Your task to perform on an android device: Clear the shopping cart on amazon.com. Search for beats solo 3 on amazon.com, select the first entry, and add it to the cart. Image 0: 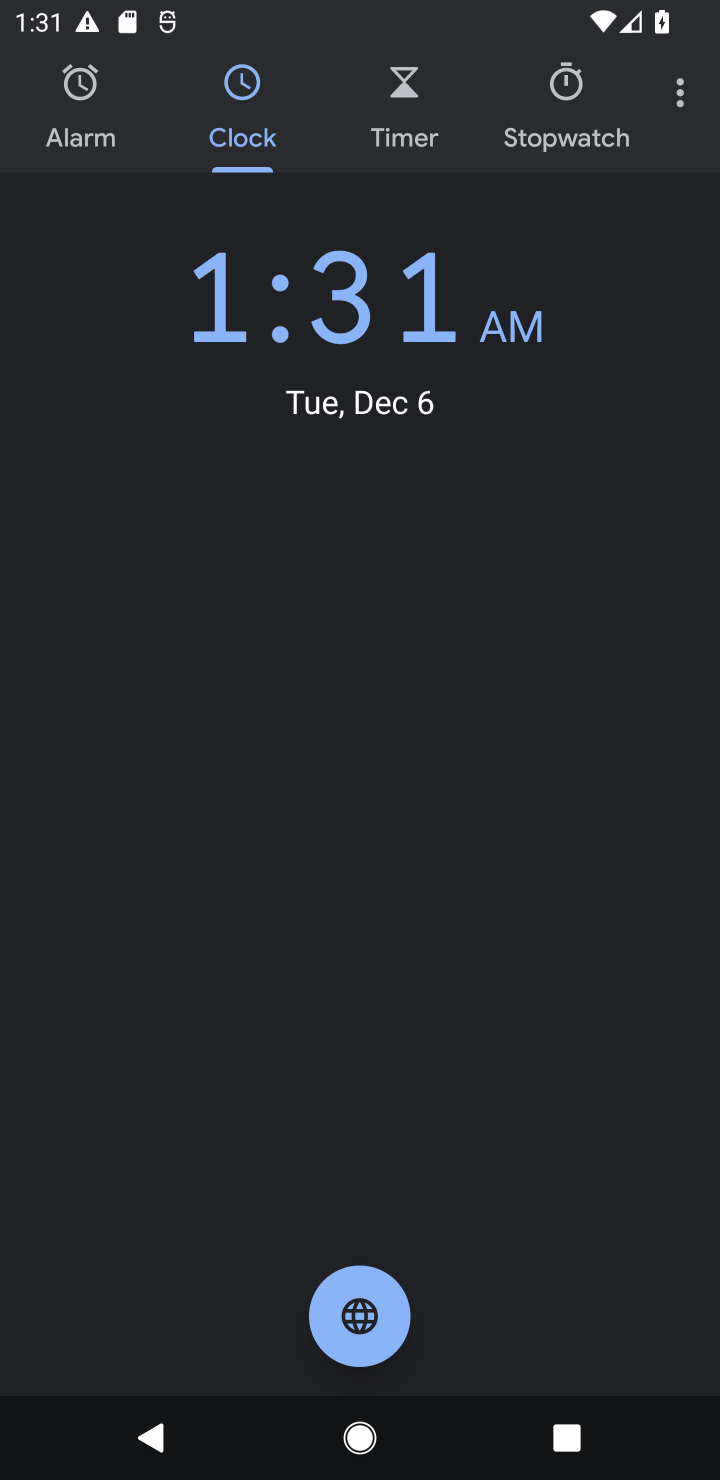
Step 0: press home button
Your task to perform on an android device: Clear the shopping cart on amazon.com. Search for beats solo 3 on amazon.com, select the first entry, and add it to the cart. Image 1: 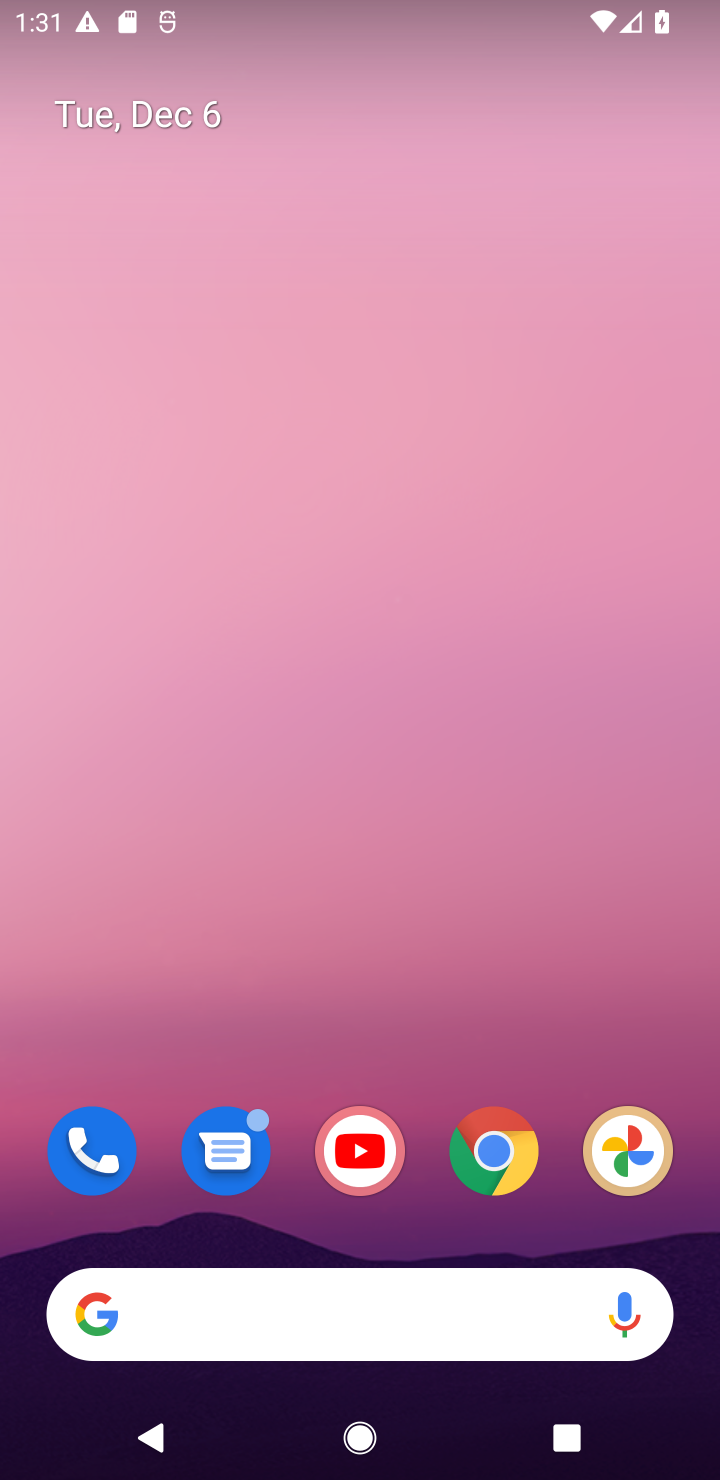
Step 1: click (496, 1140)
Your task to perform on an android device: Clear the shopping cart on amazon.com. Search for beats solo 3 on amazon.com, select the first entry, and add it to the cart. Image 2: 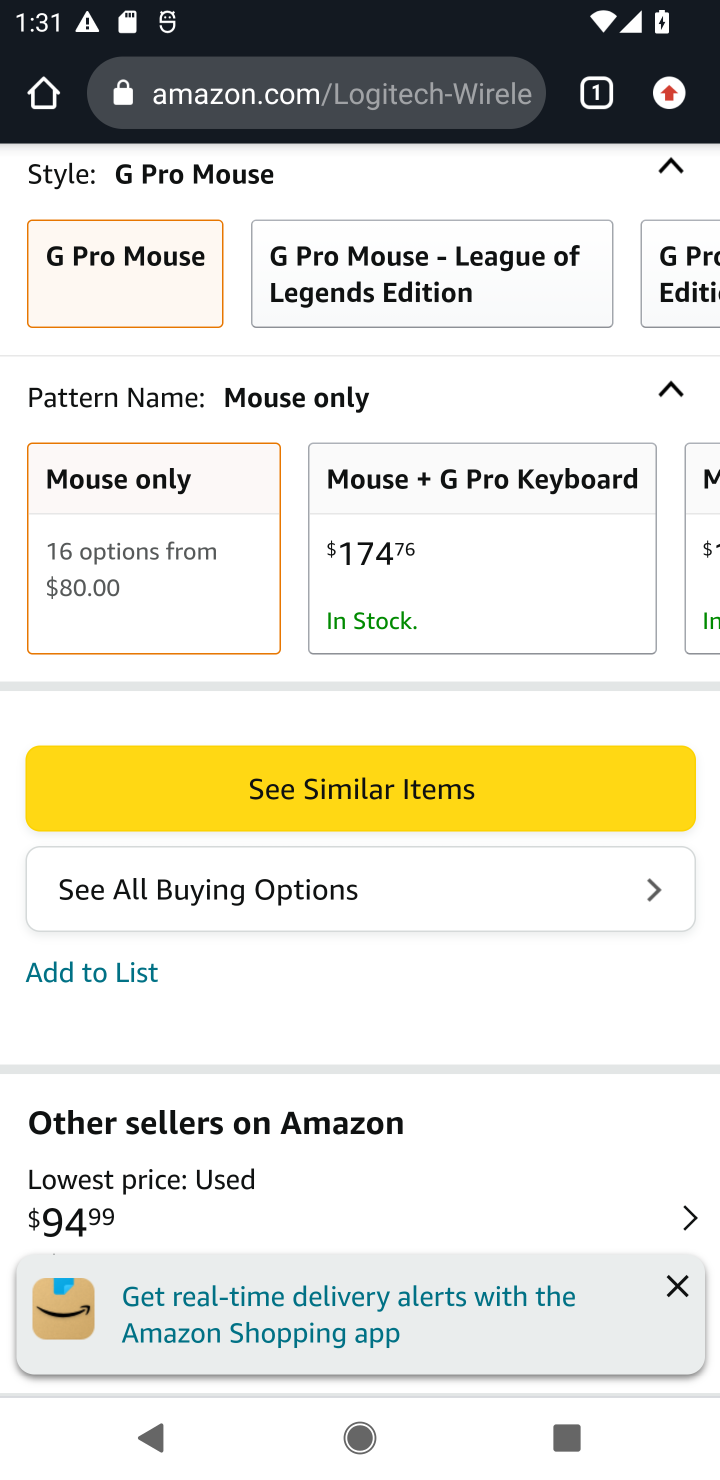
Step 2: drag from (413, 968) to (407, 1232)
Your task to perform on an android device: Clear the shopping cart on amazon.com. Search for beats solo 3 on amazon.com, select the first entry, and add it to the cart. Image 3: 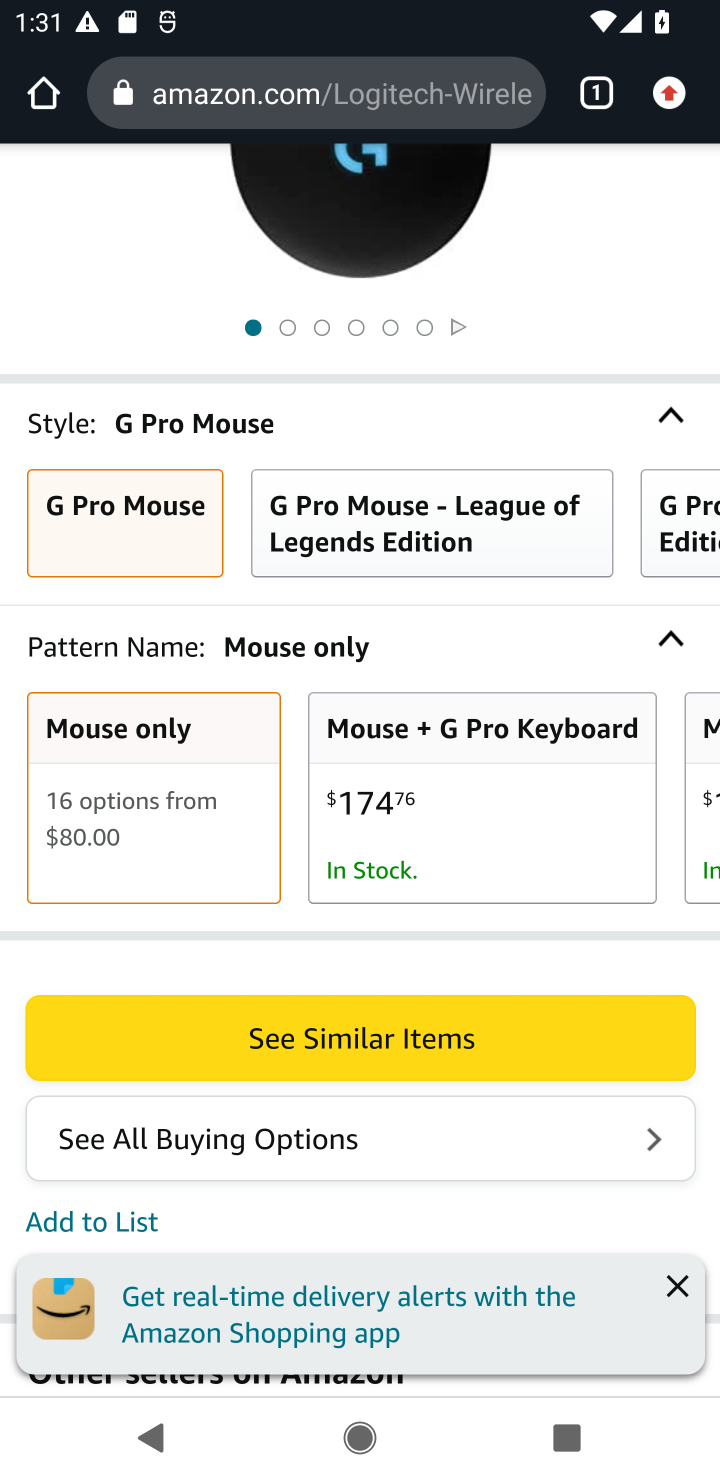
Step 3: drag from (622, 296) to (518, 1267)
Your task to perform on an android device: Clear the shopping cart on amazon.com. Search for beats solo 3 on amazon.com, select the first entry, and add it to the cart. Image 4: 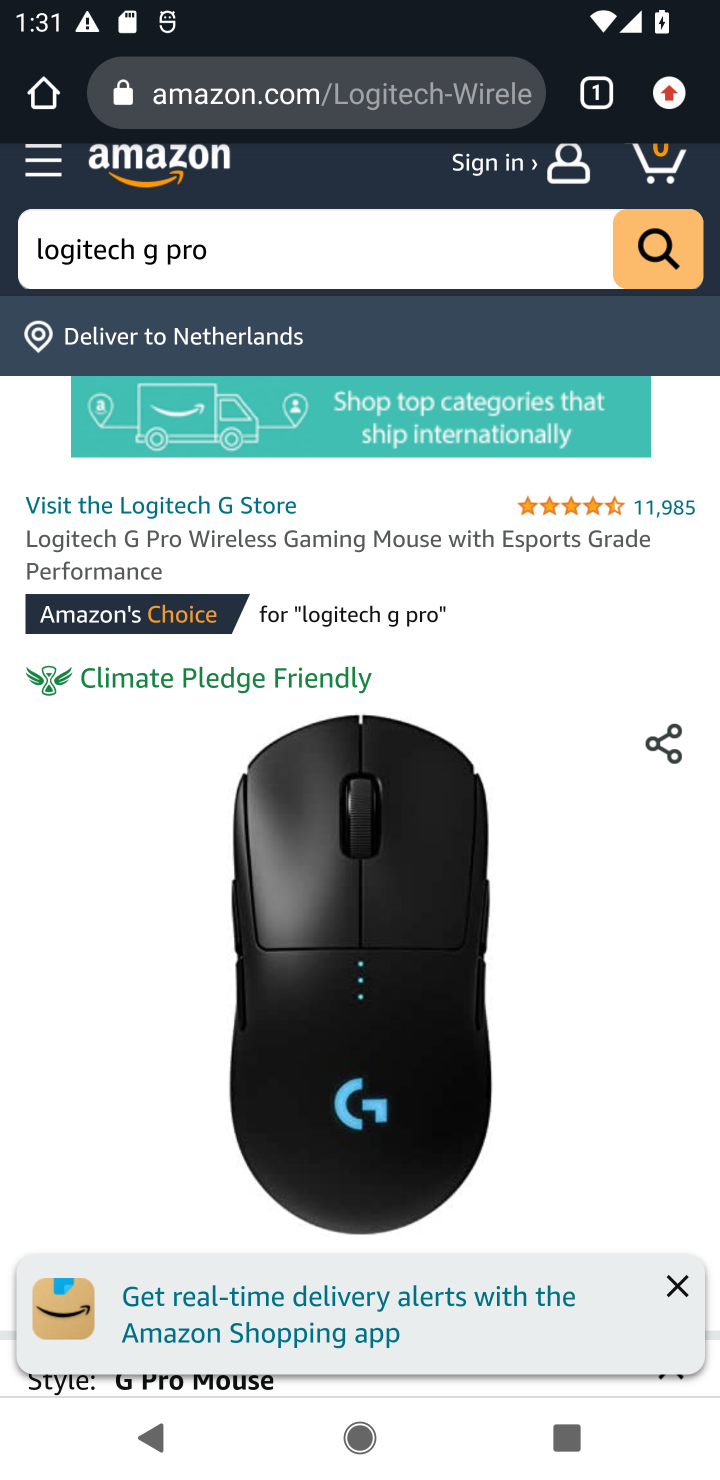
Step 4: click (657, 155)
Your task to perform on an android device: Clear the shopping cart on amazon.com. Search for beats solo 3 on amazon.com, select the first entry, and add it to the cart. Image 5: 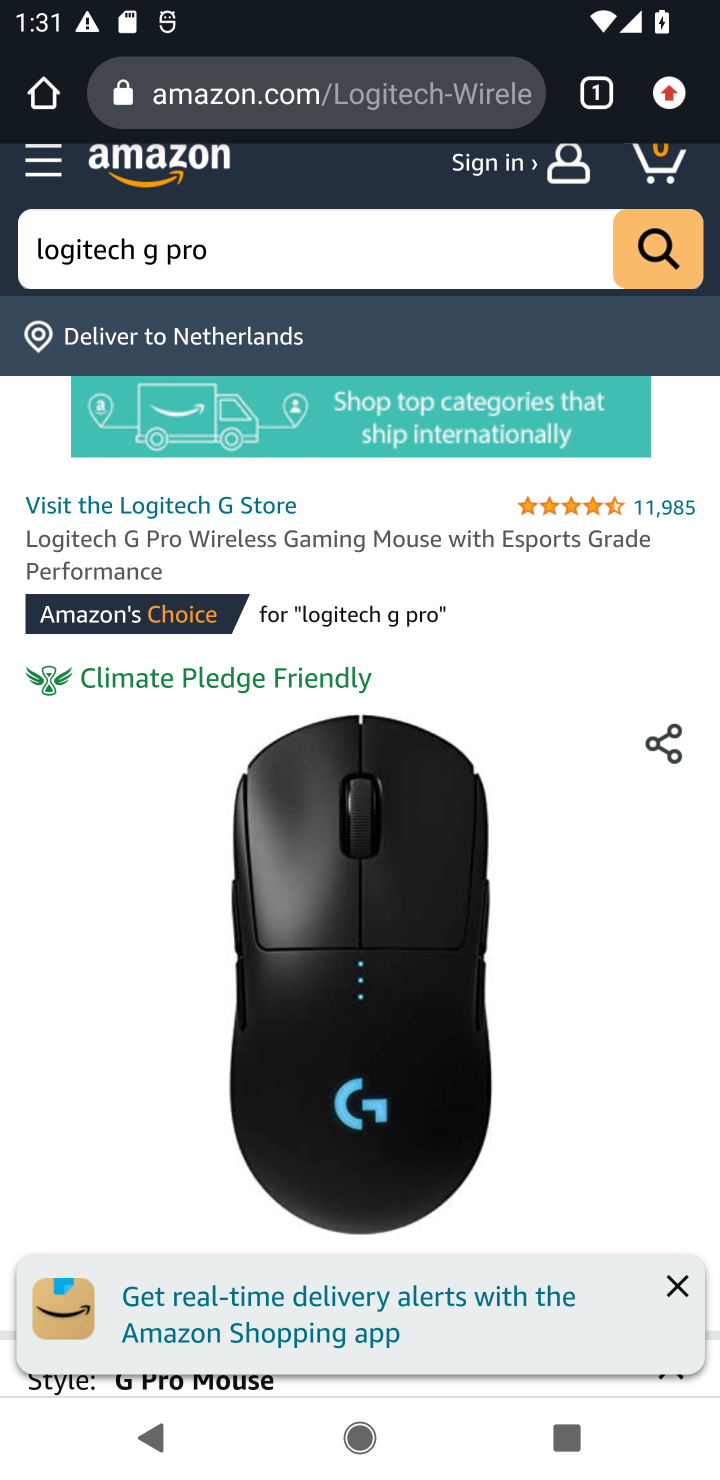
Step 5: click (662, 169)
Your task to perform on an android device: Clear the shopping cart on amazon.com. Search for beats solo 3 on amazon.com, select the first entry, and add it to the cart. Image 6: 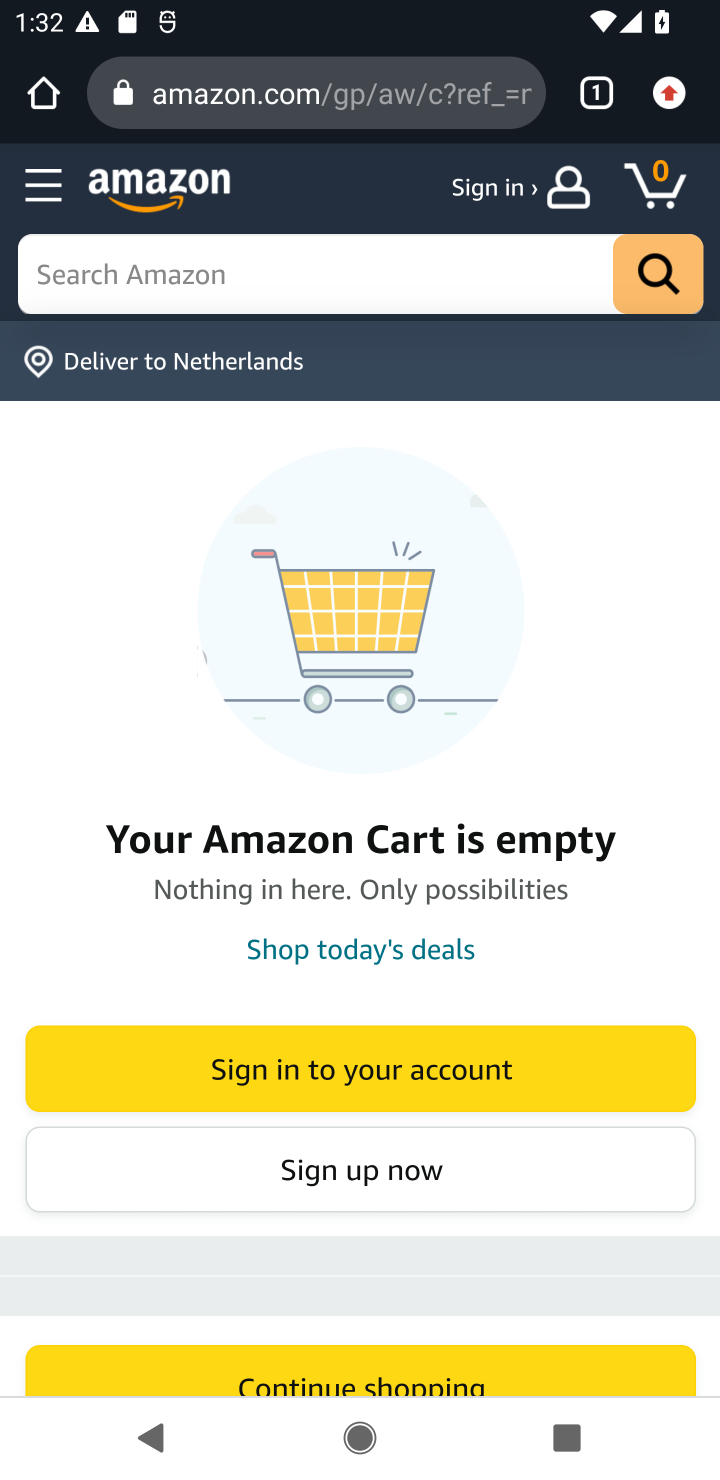
Step 6: click (236, 276)
Your task to perform on an android device: Clear the shopping cart on amazon.com. Search for beats solo 3 on amazon.com, select the first entry, and add it to the cart. Image 7: 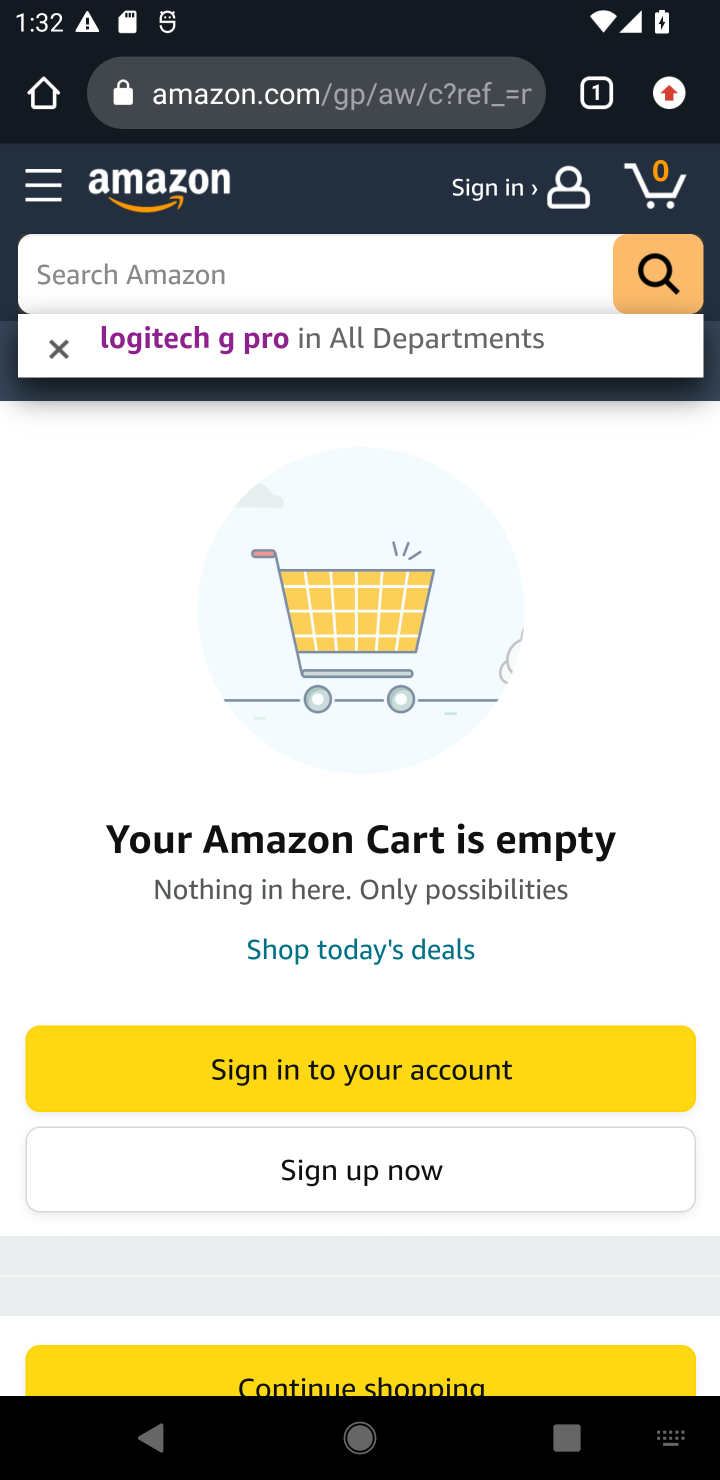
Step 7: type " beats solo 3"
Your task to perform on an android device: Clear the shopping cart on amazon.com. Search for beats solo 3 on amazon.com, select the first entry, and add it to the cart. Image 8: 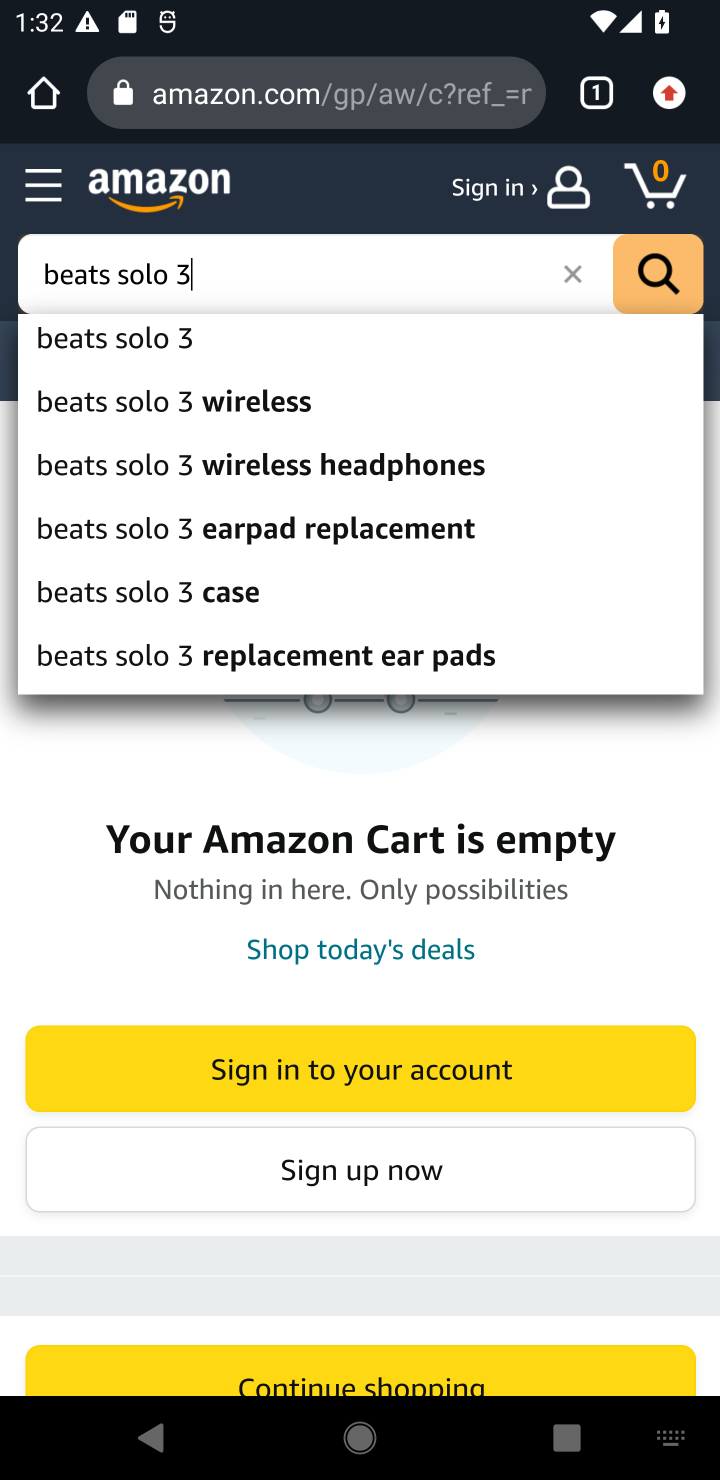
Step 8: click (149, 347)
Your task to perform on an android device: Clear the shopping cart on amazon.com. Search for beats solo 3 on amazon.com, select the first entry, and add it to the cart. Image 9: 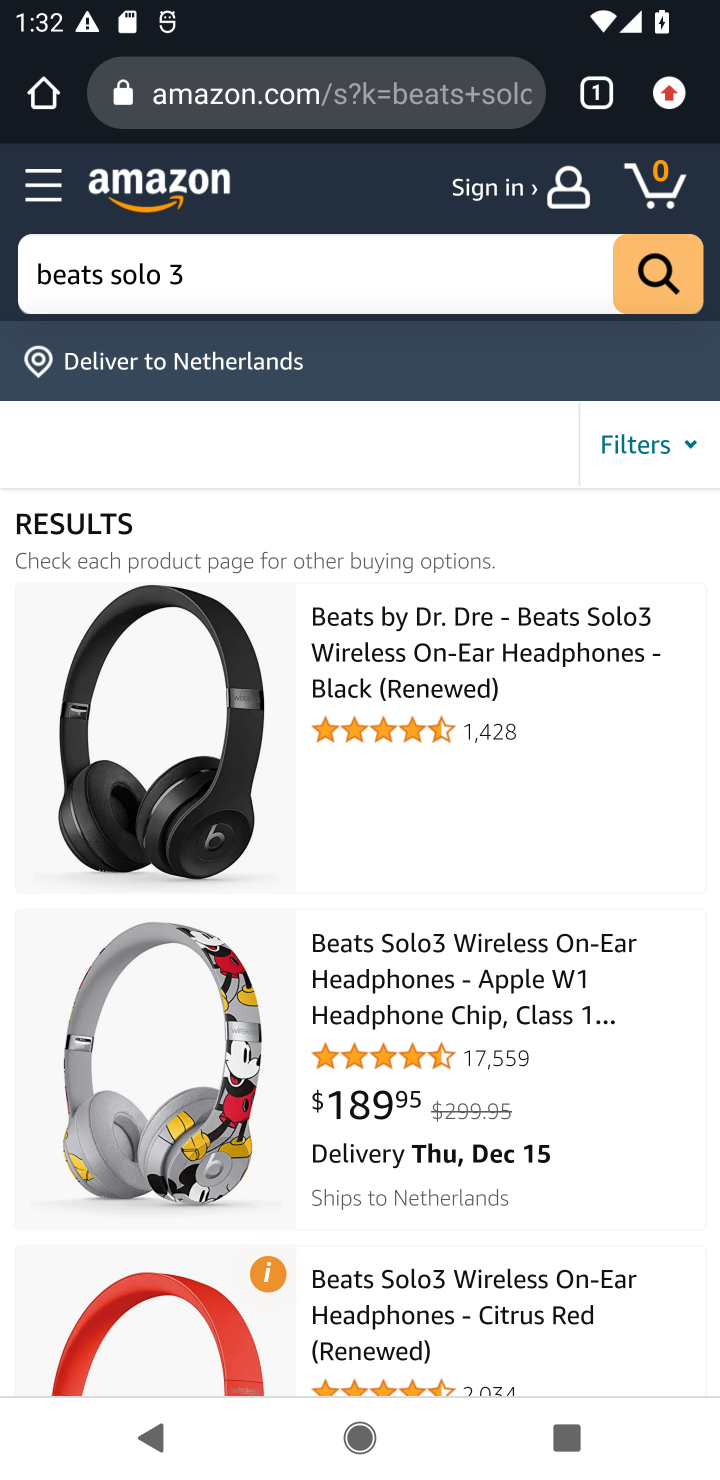
Step 9: click (380, 652)
Your task to perform on an android device: Clear the shopping cart on amazon.com. Search for beats solo 3 on amazon.com, select the first entry, and add it to the cart. Image 10: 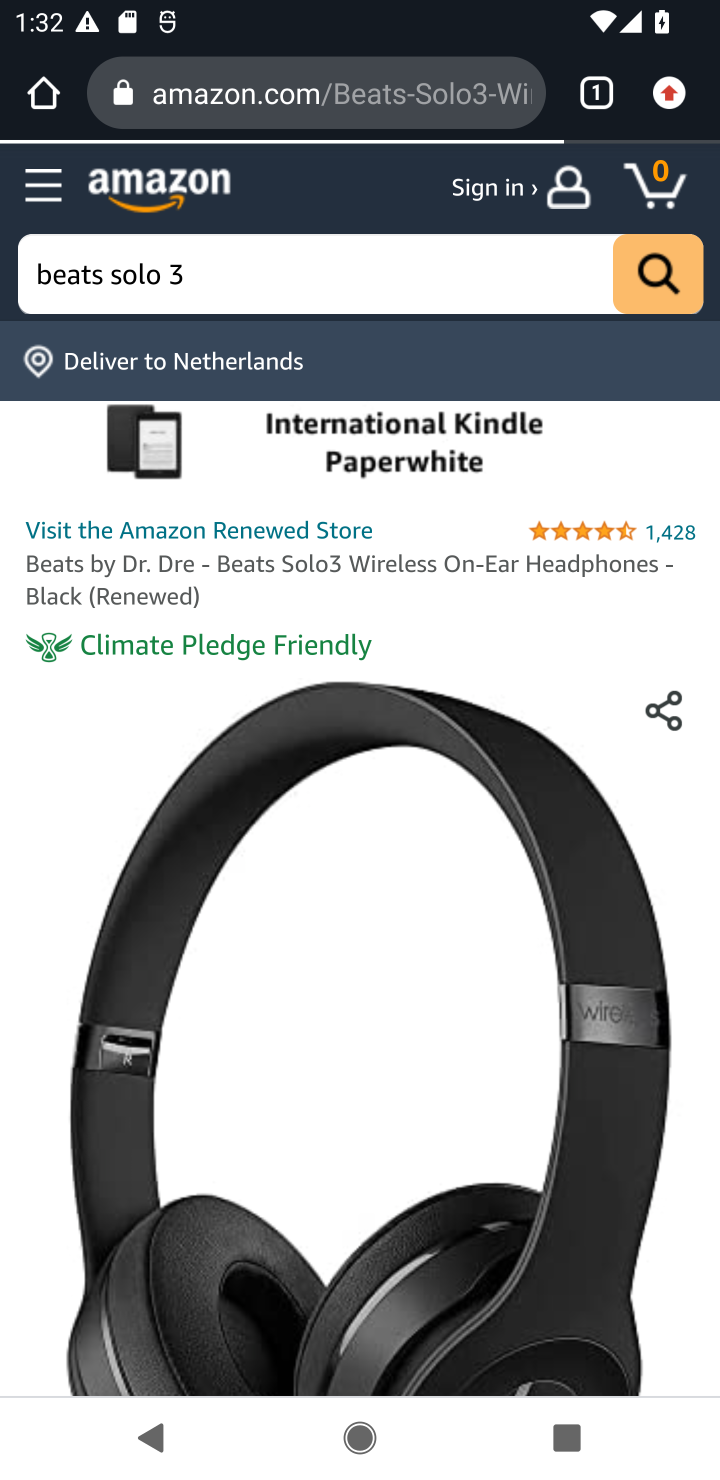
Step 10: task complete